Your task to perform on an android device: Check the weather Image 0: 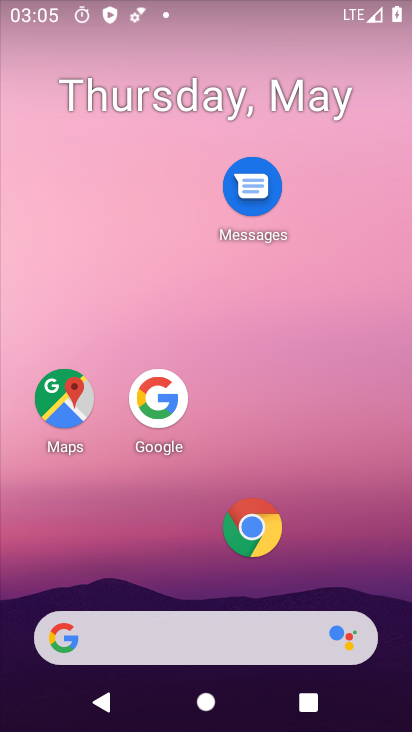
Step 0: drag from (207, 592) to (207, 253)
Your task to perform on an android device: Check the weather Image 1: 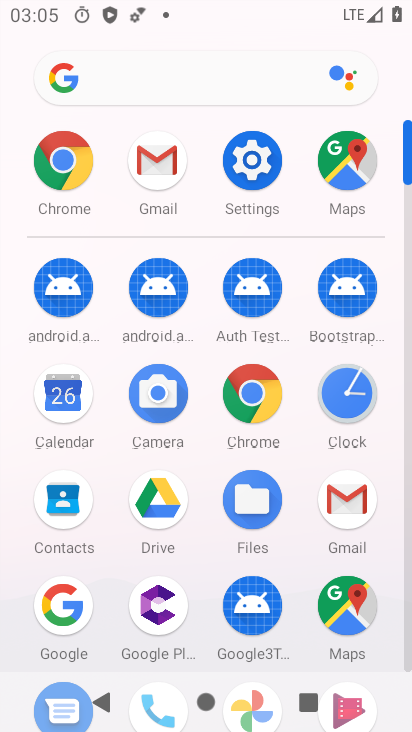
Step 1: click (50, 405)
Your task to perform on an android device: Check the weather Image 2: 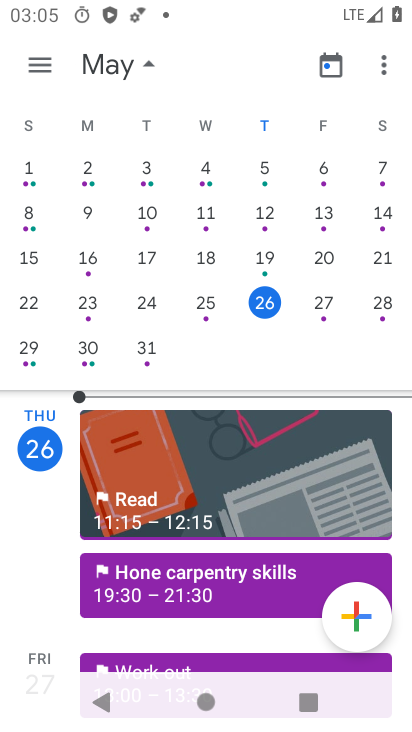
Step 2: press home button
Your task to perform on an android device: Check the weather Image 3: 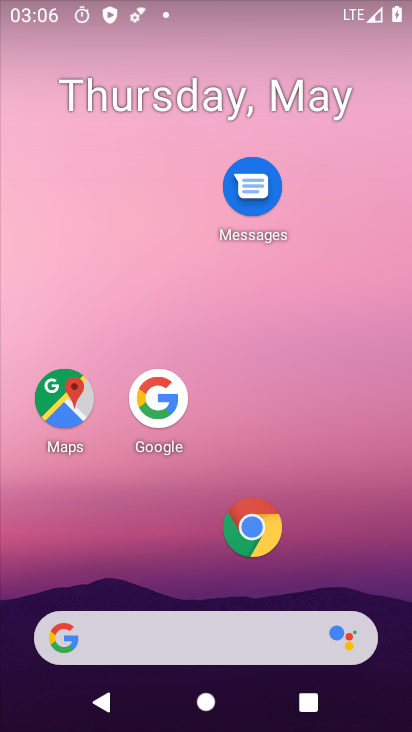
Step 3: drag from (192, 578) to (181, 44)
Your task to perform on an android device: Check the weather Image 4: 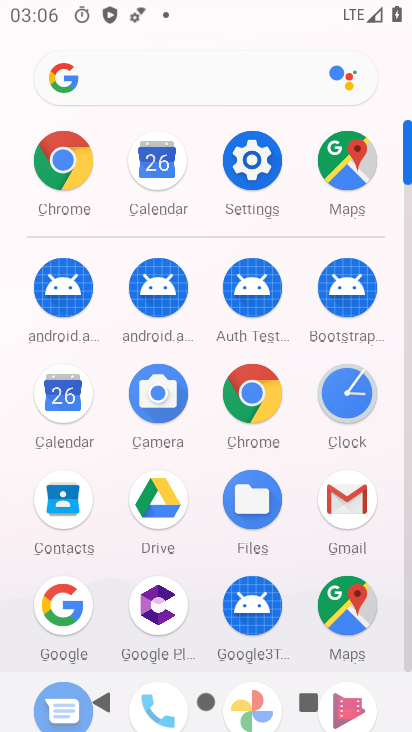
Step 4: click (145, 73)
Your task to perform on an android device: Check the weather Image 5: 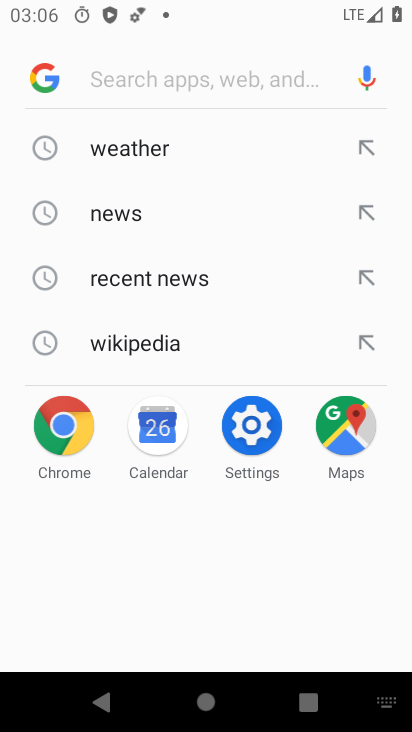
Step 5: click (143, 159)
Your task to perform on an android device: Check the weather Image 6: 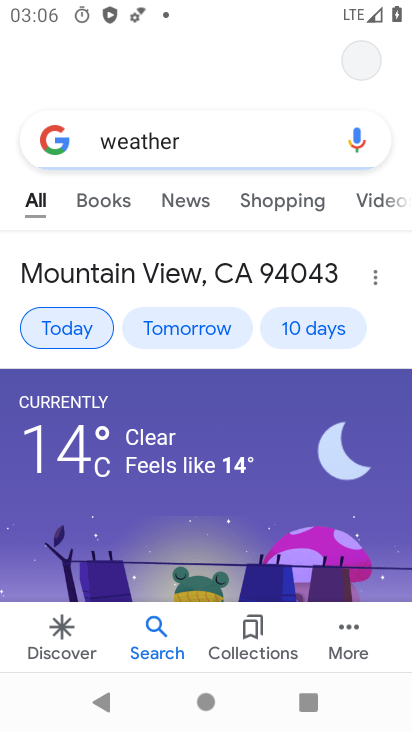
Step 6: task complete